Your task to perform on an android device: Open CNN.com Image 0: 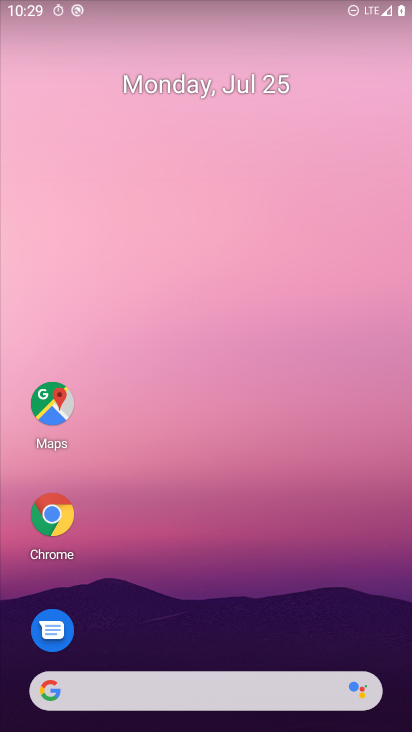
Step 0: click (70, 678)
Your task to perform on an android device: Open CNN.com Image 1: 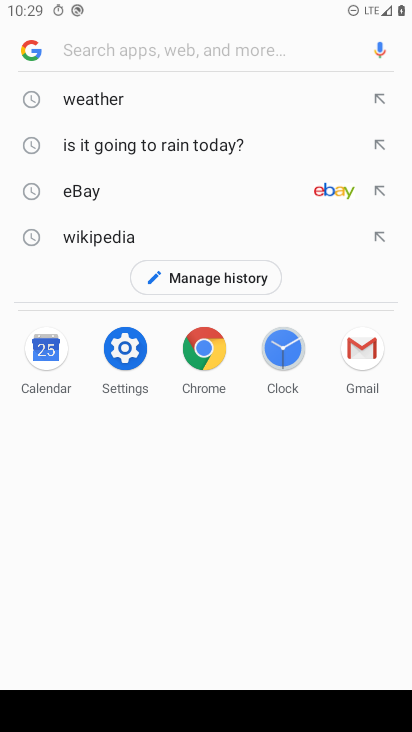
Step 1: type "CNN.com"
Your task to perform on an android device: Open CNN.com Image 2: 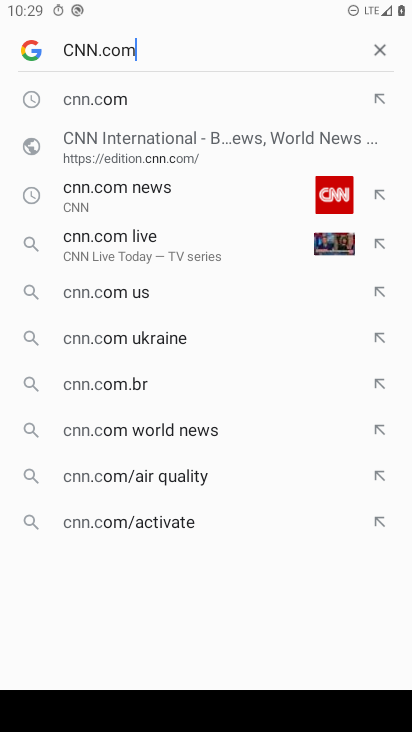
Step 2: type ""
Your task to perform on an android device: Open CNN.com Image 3: 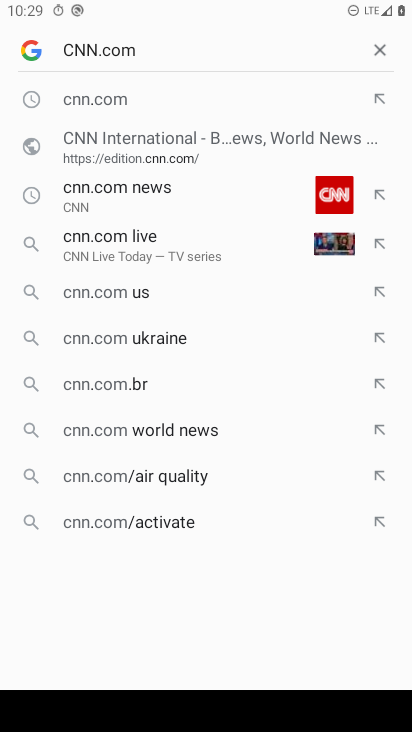
Step 3: click (109, 101)
Your task to perform on an android device: Open CNN.com Image 4: 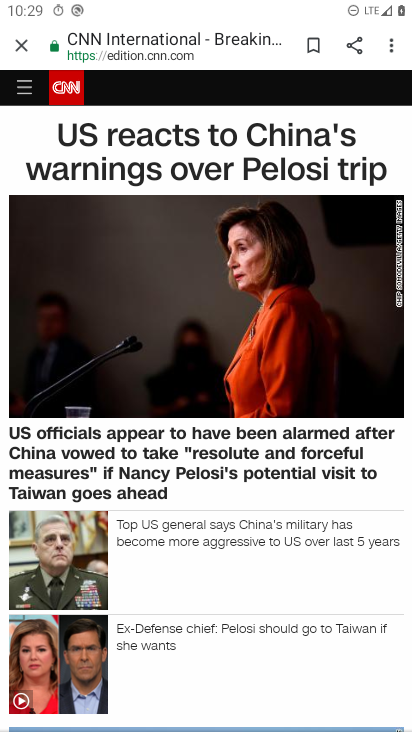
Step 4: task complete